Your task to perform on an android device: turn off sleep mode Image 0: 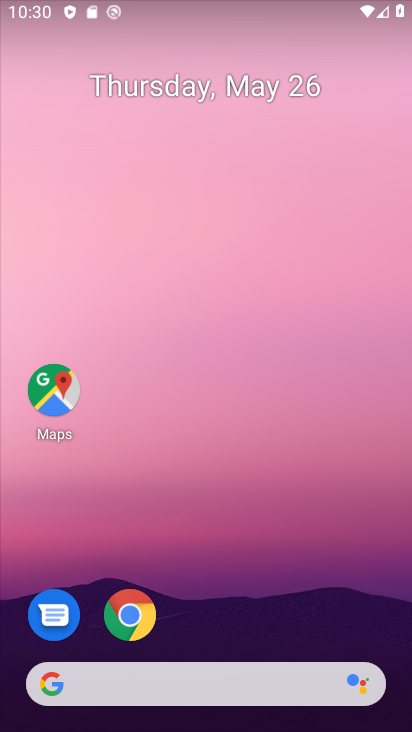
Step 0: drag from (327, 625) to (349, 328)
Your task to perform on an android device: turn off sleep mode Image 1: 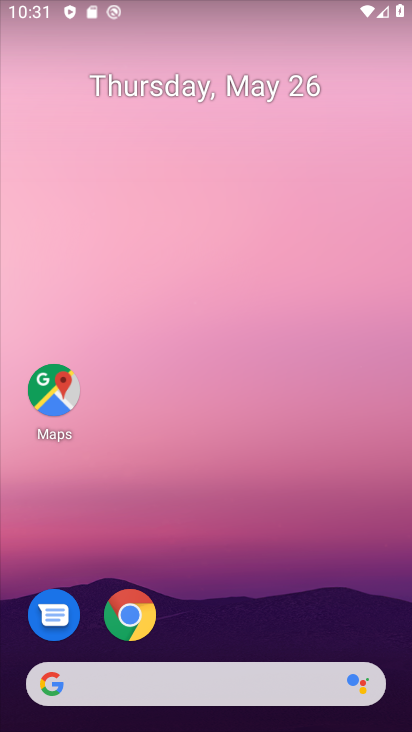
Step 1: drag from (336, 653) to (391, 279)
Your task to perform on an android device: turn off sleep mode Image 2: 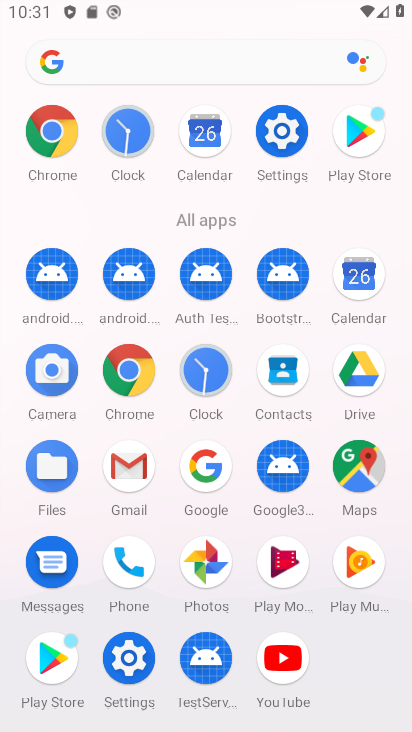
Step 2: click (121, 666)
Your task to perform on an android device: turn off sleep mode Image 3: 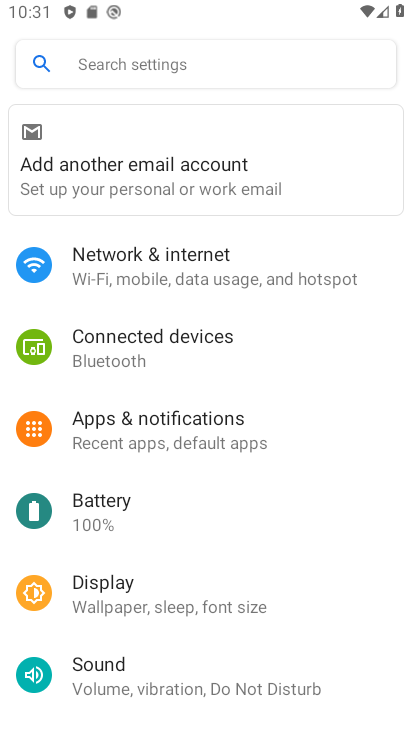
Step 3: click (127, 609)
Your task to perform on an android device: turn off sleep mode Image 4: 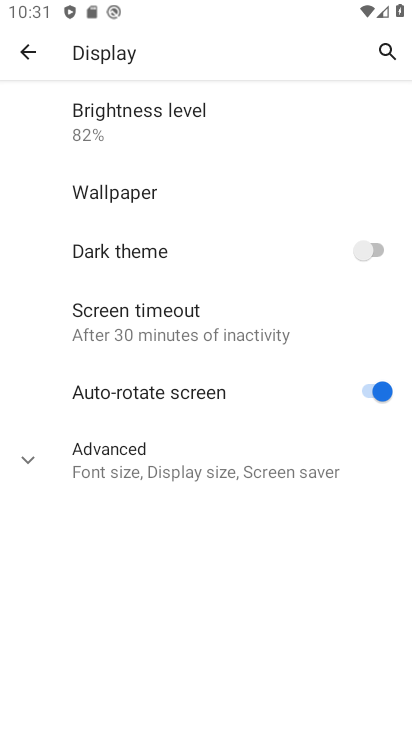
Step 4: click (127, 609)
Your task to perform on an android device: turn off sleep mode Image 5: 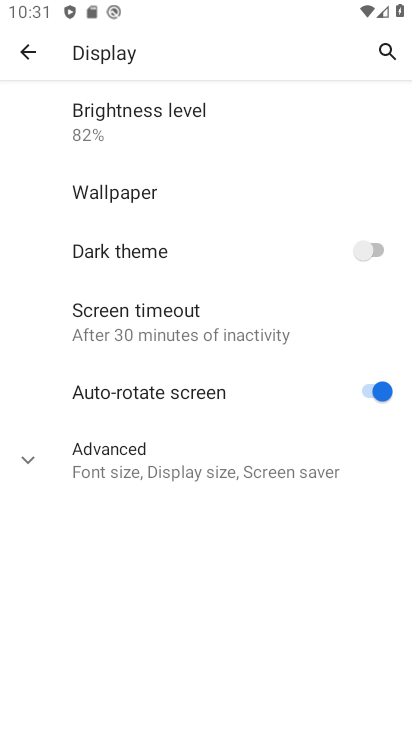
Step 5: click (127, 609)
Your task to perform on an android device: turn off sleep mode Image 6: 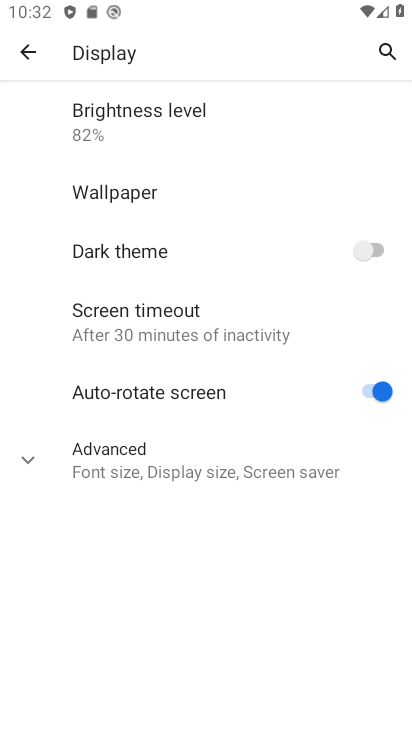
Step 6: task complete